Your task to perform on an android device: open app "Microsoft Authenticator" (install if not already installed), go to login, and select forgot password Image 0: 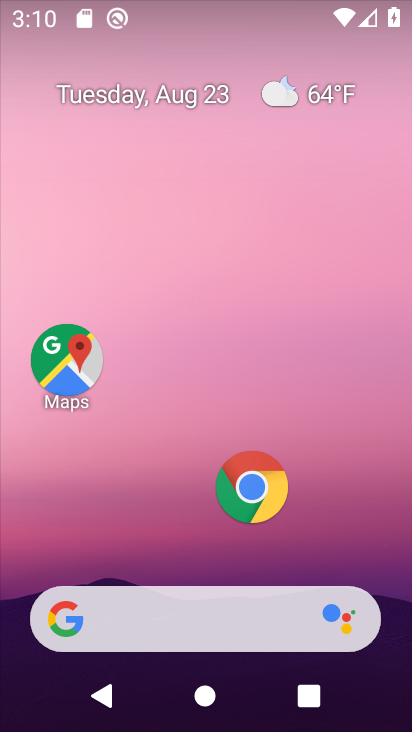
Step 0: drag from (212, 546) to (199, 252)
Your task to perform on an android device: open app "Microsoft Authenticator" (install if not already installed), go to login, and select forgot password Image 1: 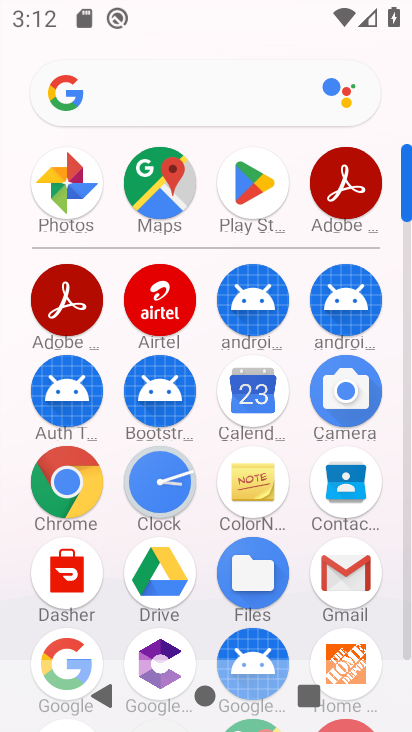
Step 1: click (260, 179)
Your task to perform on an android device: open app "Microsoft Authenticator" (install if not already installed), go to login, and select forgot password Image 2: 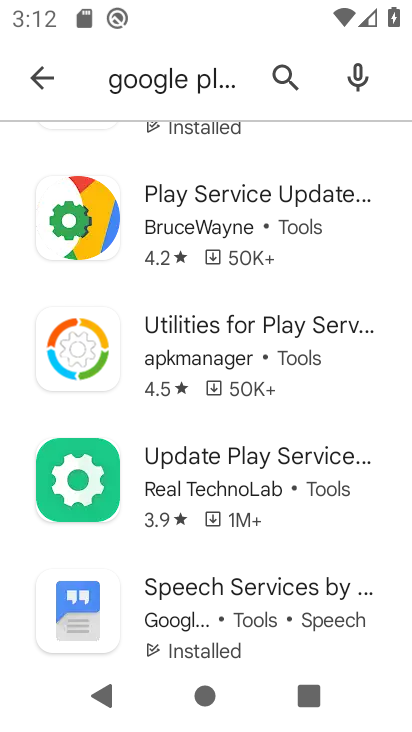
Step 2: click (33, 63)
Your task to perform on an android device: open app "Microsoft Authenticator" (install if not already installed), go to login, and select forgot password Image 3: 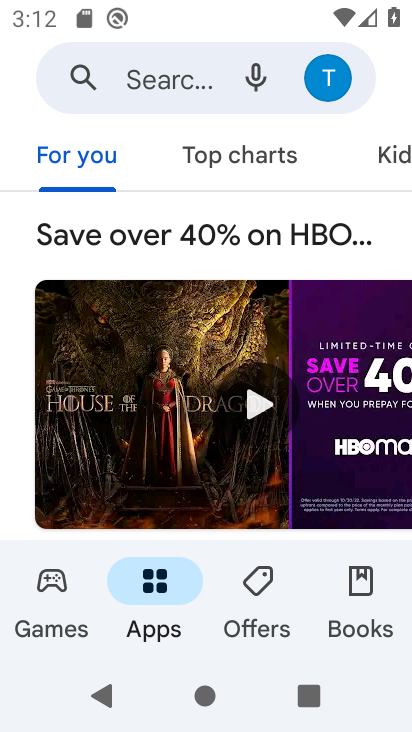
Step 3: click (159, 81)
Your task to perform on an android device: open app "Microsoft Authenticator" (install if not already installed), go to login, and select forgot password Image 4: 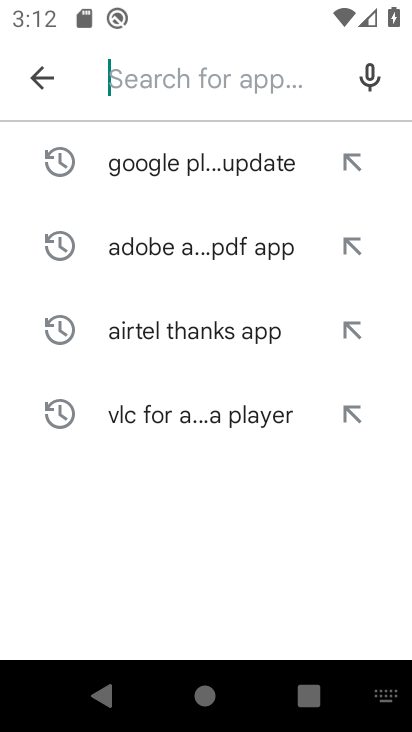
Step 4: type "Microsoft Authenticator "
Your task to perform on an android device: open app "Microsoft Authenticator" (install if not already installed), go to login, and select forgot password Image 5: 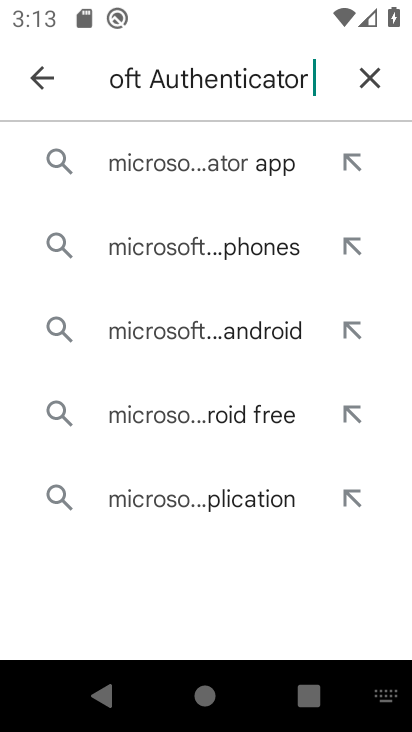
Step 5: click (128, 179)
Your task to perform on an android device: open app "Microsoft Authenticator" (install if not already installed), go to login, and select forgot password Image 6: 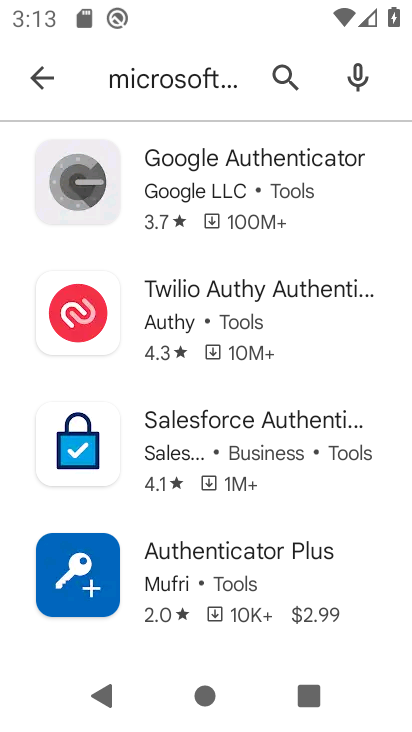
Step 6: click (212, 210)
Your task to perform on an android device: open app "Microsoft Authenticator" (install if not already installed), go to login, and select forgot password Image 7: 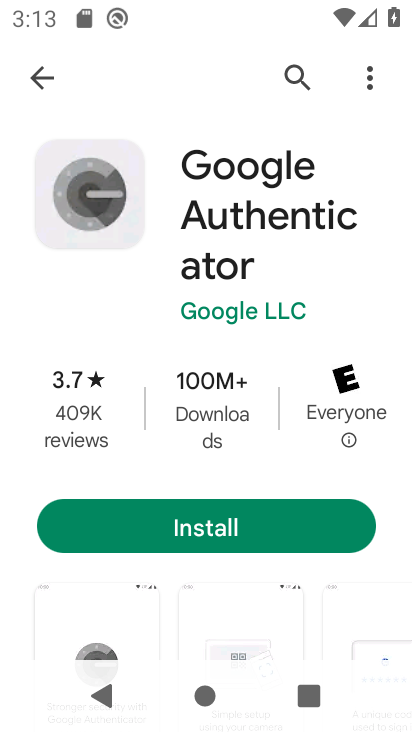
Step 7: click (20, 69)
Your task to perform on an android device: open app "Microsoft Authenticator" (install if not already installed), go to login, and select forgot password Image 8: 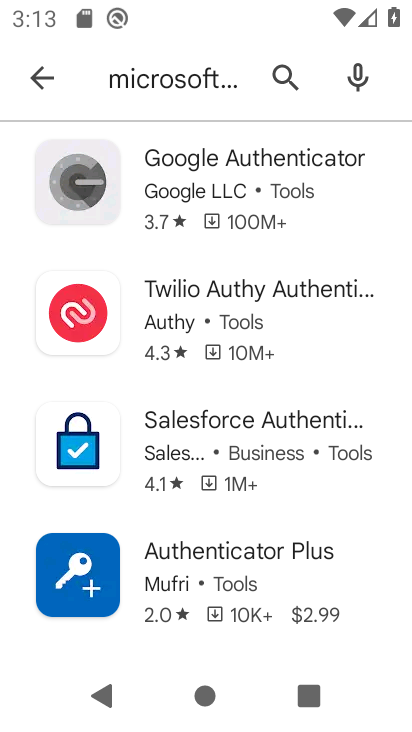
Step 8: task complete